Your task to perform on an android device: Search for pizza restaurants on Maps Image 0: 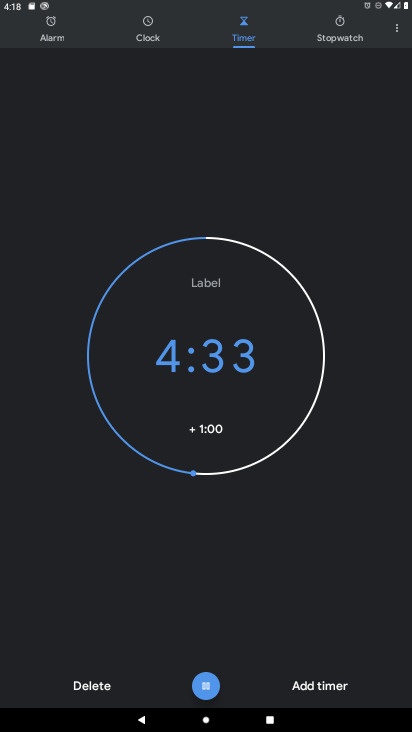
Step 0: press home button
Your task to perform on an android device: Search for pizza restaurants on Maps Image 1: 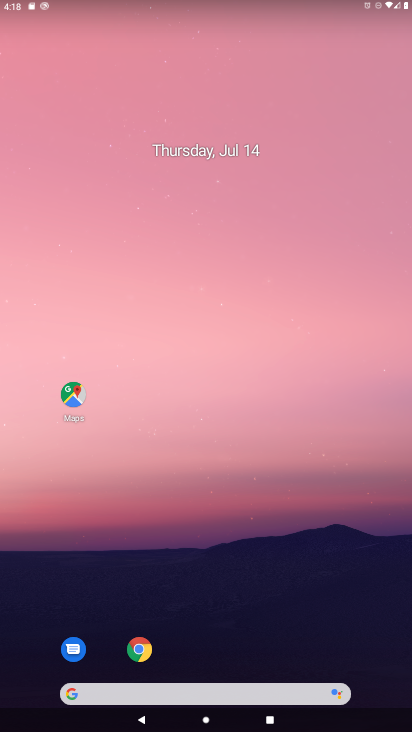
Step 1: click (73, 403)
Your task to perform on an android device: Search for pizza restaurants on Maps Image 2: 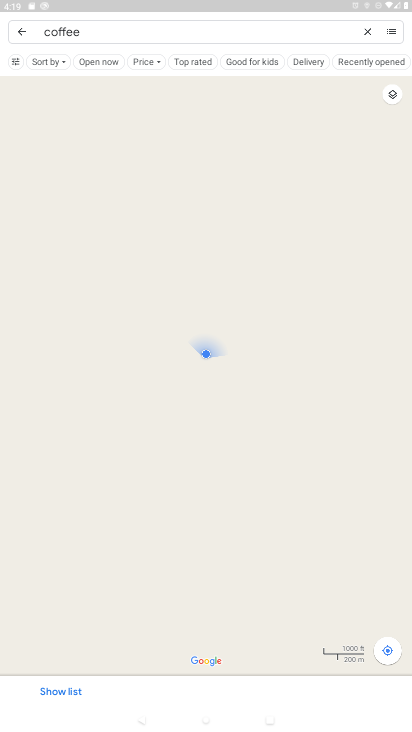
Step 2: click (368, 31)
Your task to perform on an android device: Search for pizza restaurants on Maps Image 3: 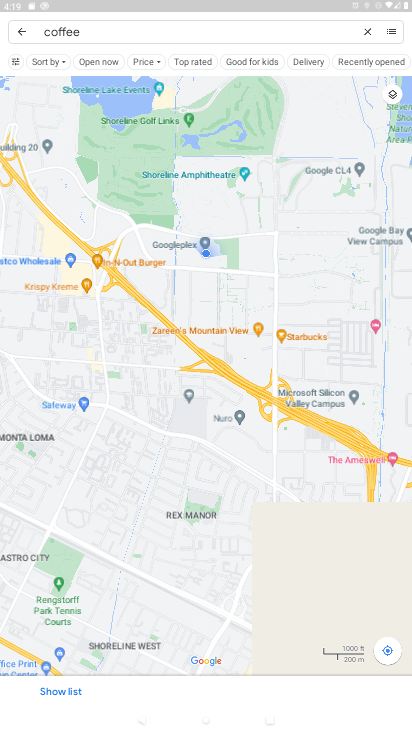
Step 3: click (362, 28)
Your task to perform on an android device: Search for pizza restaurants on Maps Image 4: 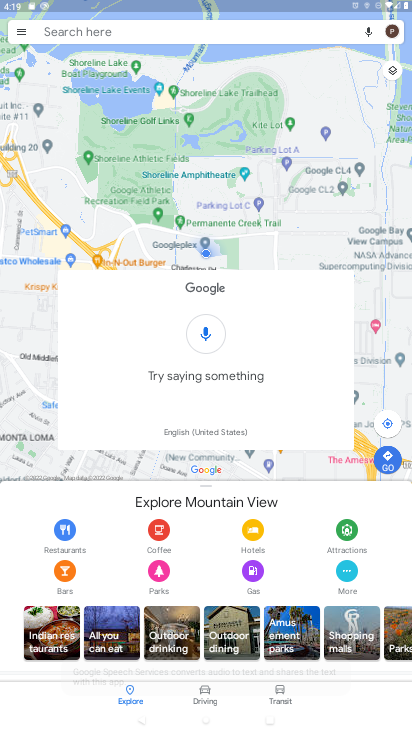
Step 4: click (230, 29)
Your task to perform on an android device: Search for pizza restaurants on Maps Image 5: 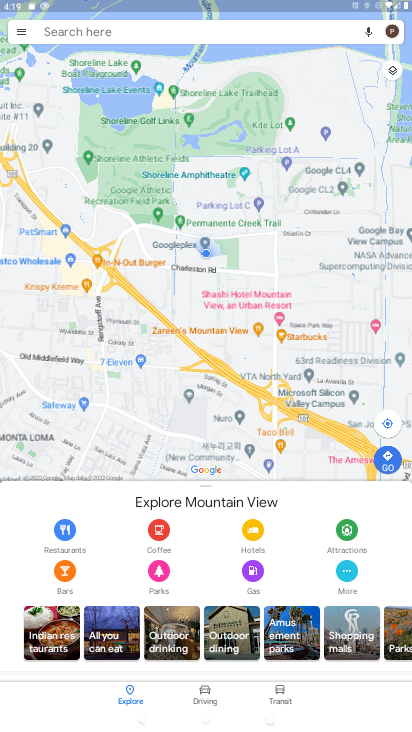
Step 5: click (58, 33)
Your task to perform on an android device: Search for pizza restaurants on Maps Image 6: 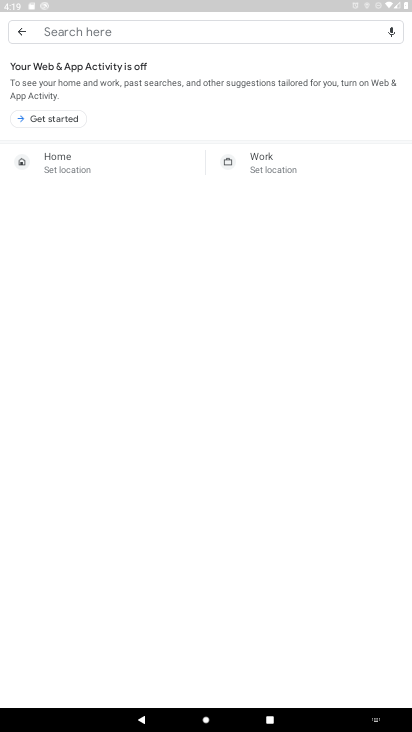
Step 6: type "Pizza restaurants"
Your task to perform on an android device: Search for pizza restaurants on Maps Image 7: 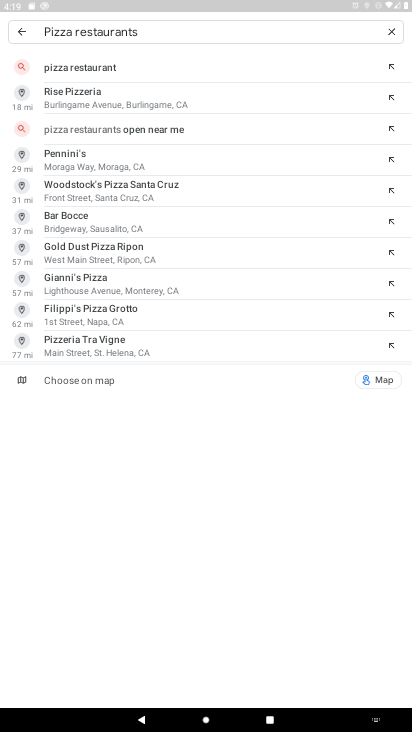
Step 7: click (108, 70)
Your task to perform on an android device: Search for pizza restaurants on Maps Image 8: 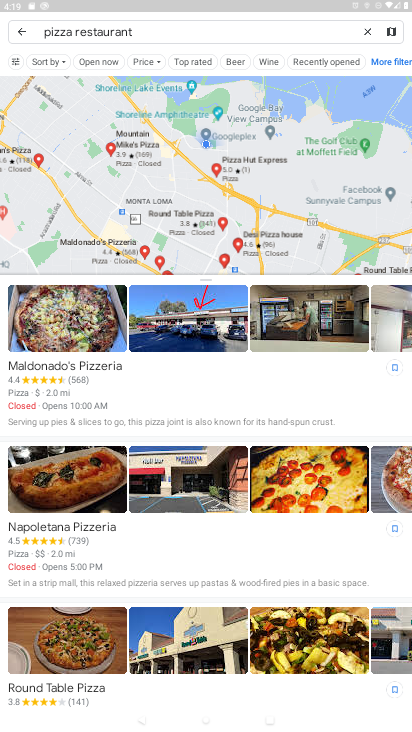
Step 8: task complete